Your task to perform on an android device: Open the stopwatch Image 0: 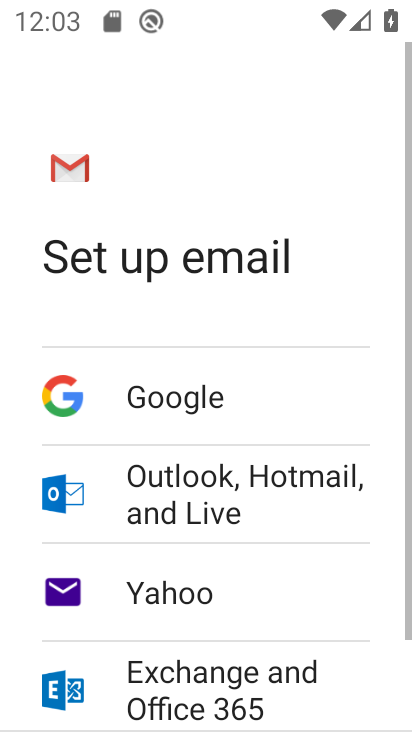
Step 0: press home button
Your task to perform on an android device: Open the stopwatch Image 1: 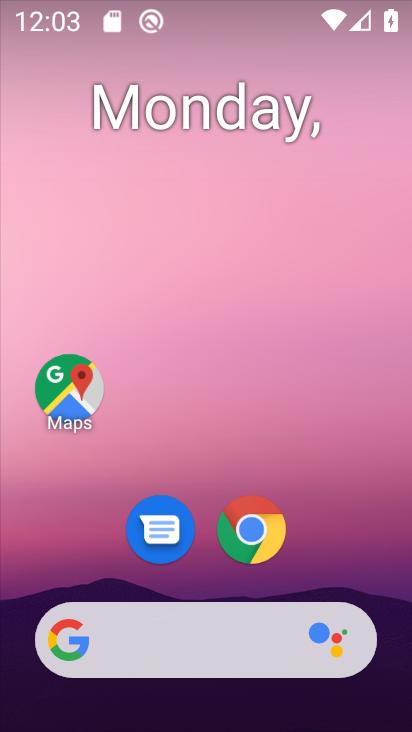
Step 1: drag from (217, 608) to (242, 62)
Your task to perform on an android device: Open the stopwatch Image 2: 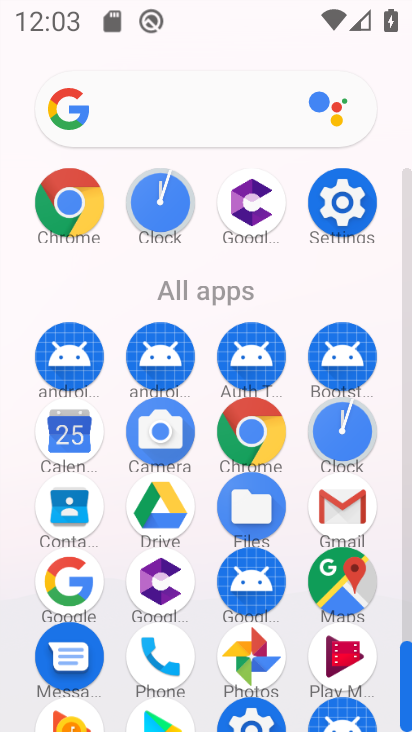
Step 2: click (333, 461)
Your task to perform on an android device: Open the stopwatch Image 3: 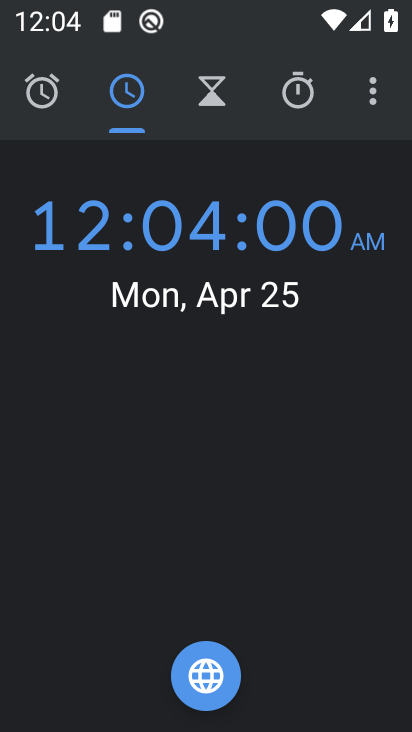
Step 3: click (295, 101)
Your task to perform on an android device: Open the stopwatch Image 4: 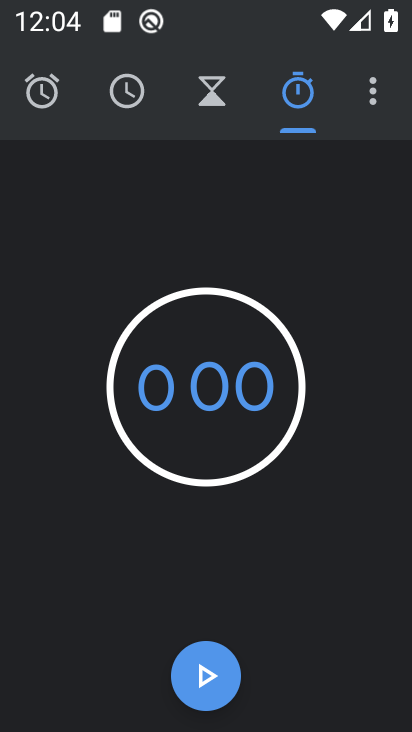
Step 4: drag from (277, 640) to (293, 203)
Your task to perform on an android device: Open the stopwatch Image 5: 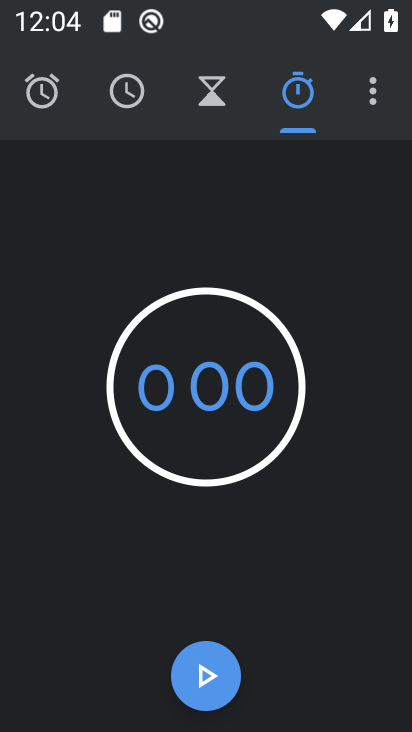
Step 5: click (204, 653)
Your task to perform on an android device: Open the stopwatch Image 6: 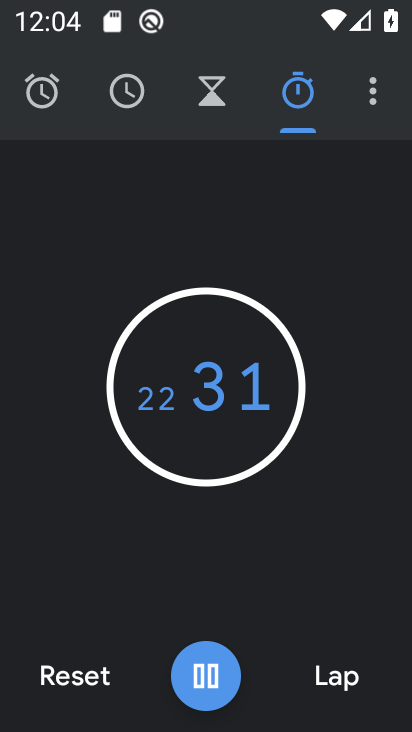
Step 6: task complete